Your task to perform on an android device: delete browsing data in the chrome app Image 0: 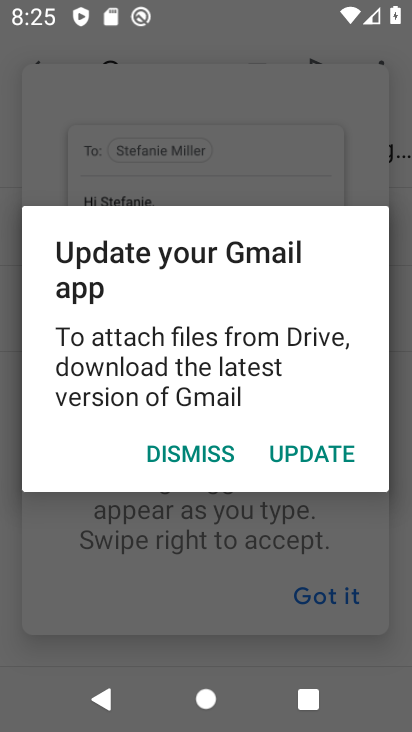
Step 0: press home button
Your task to perform on an android device: delete browsing data in the chrome app Image 1: 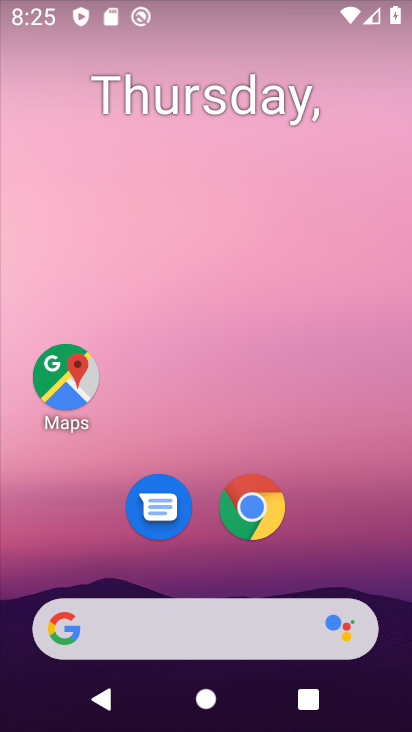
Step 1: click (257, 515)
Your task to perform on an android device: delete browsing data in the chrome app Image 2: 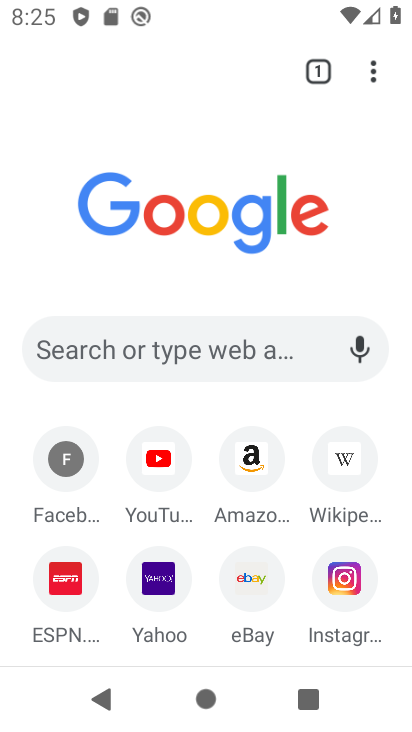
Step 2: click (364, 81)
Your task to perform on an android device: delete browsing data in the chrome app Image 3: 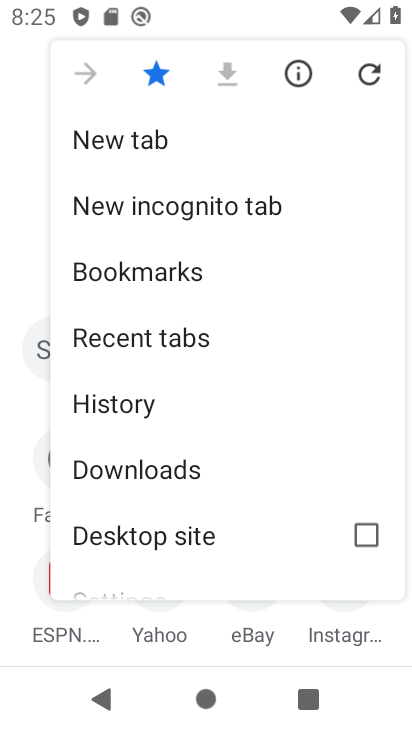
Step 3: click (145, 420)
Your task to perform on an android device: delete browsing data in the chrome app Image 4: 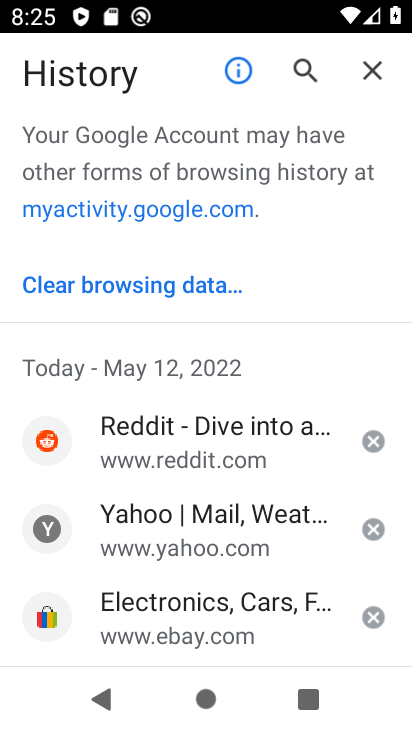
Step 4: click (182, 298)
Your task to perform on an android device: delete browsing data in the chrome app Image 5: 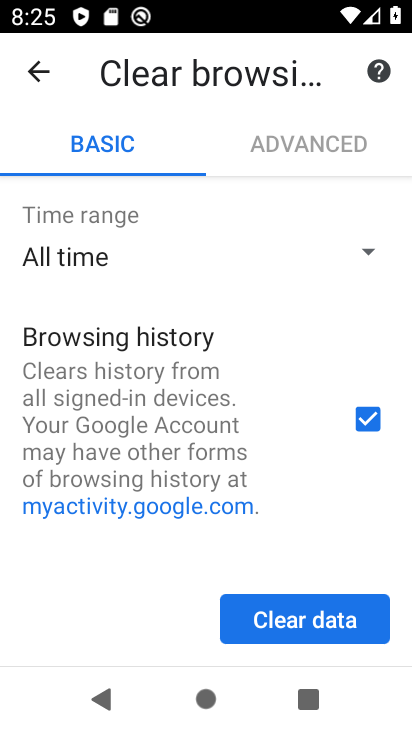
Step 5: click (310, 607)
Your task to perform on an android device: delete browsing data in the chrome app Image 6: 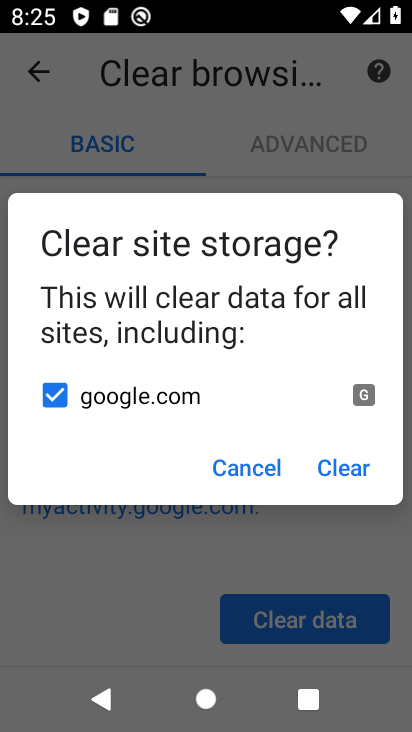
Step 6: click (349, 469)
Your task to perform on an android device: delete browsing data in the chrome app Image 7: 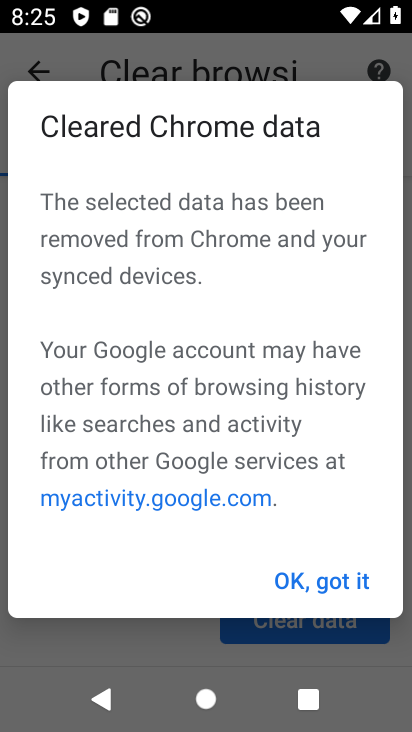
Step 7: click (328, 585)
Your task to perform on an android device: delete browsing data in the chrome app Image 8: 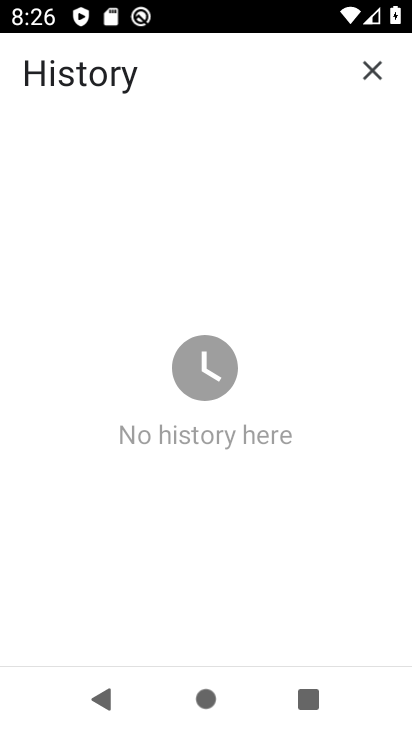
Step 8: task complete